Your task to perform on an android device: Do I have any events today? Image 0: 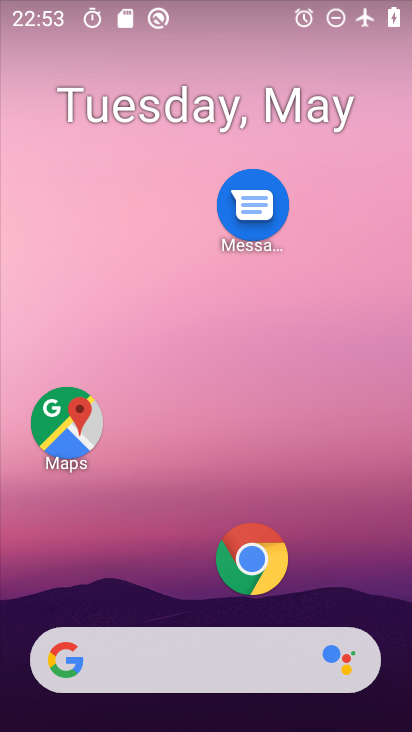
Step 0: drag from (193, 609) to (197, 170)
Your task to perform on an android device: Do I have any events today? Image 1: 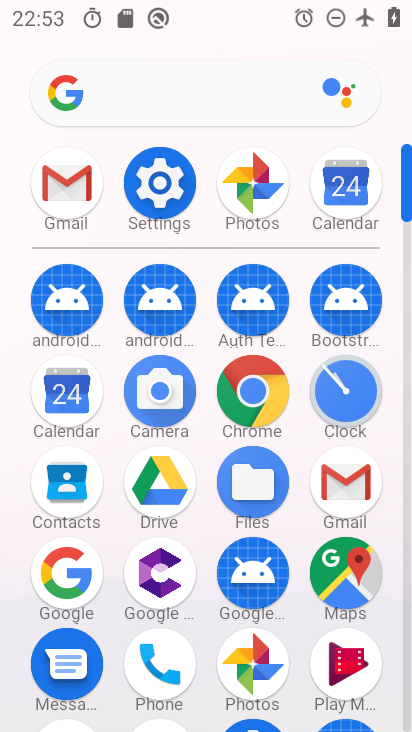
Step 1: click (335, 169)
Your task to perform on an android device: Do I have any events today? Image 2: 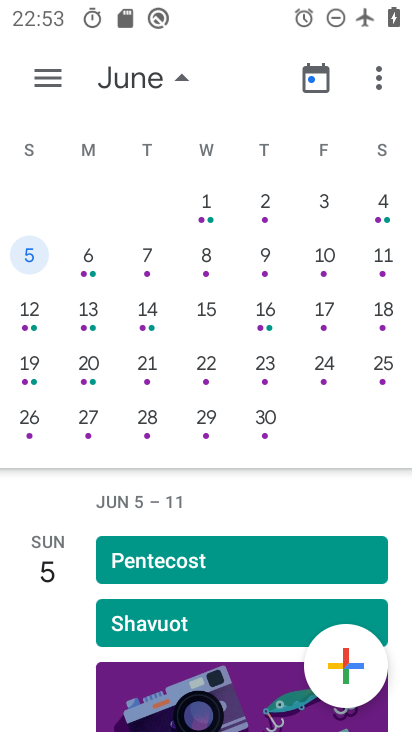
Step 2: drag from (54, 281) to (349, 315)
Your task to perform on an android device: Do I have any events today? Image 3: 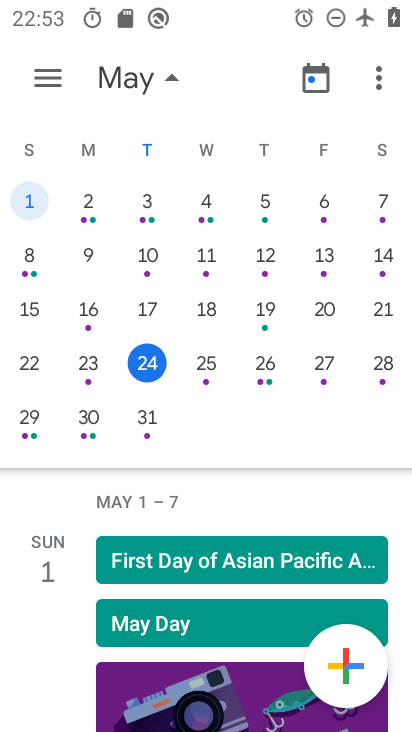
Step 3: click (140, 369)
Your task to perform on an android device: Do I have any events today? Image 4: 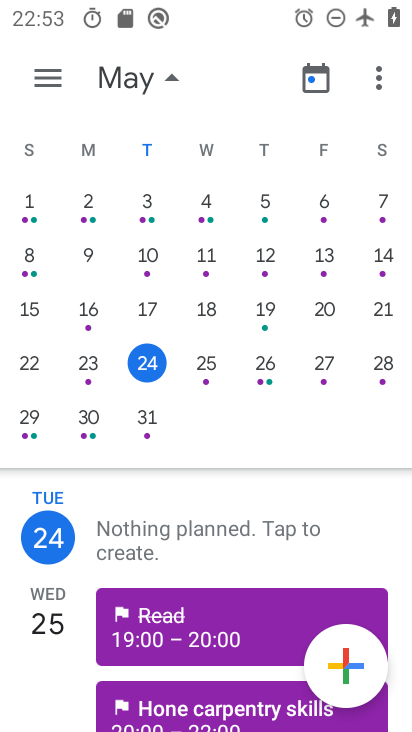
Step 4: task complete